Your task to perform on an android device: Open the stopwatch Image 0: 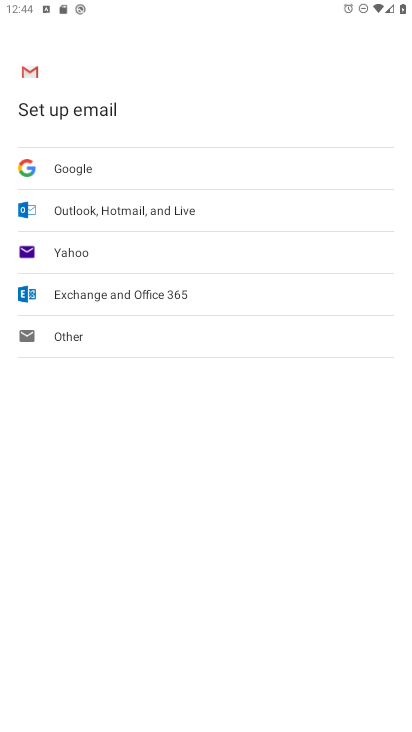
Step 0: press home button
Your task to perform on an android device: Open the stopwatch Image 1: 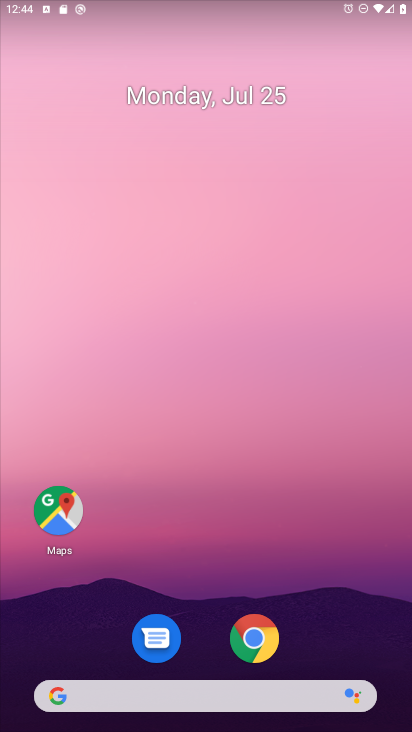
Step 1: drag from (213, 538) to (223, 62)
Your task to perform on an android device: Open the stopwatch Image 2: 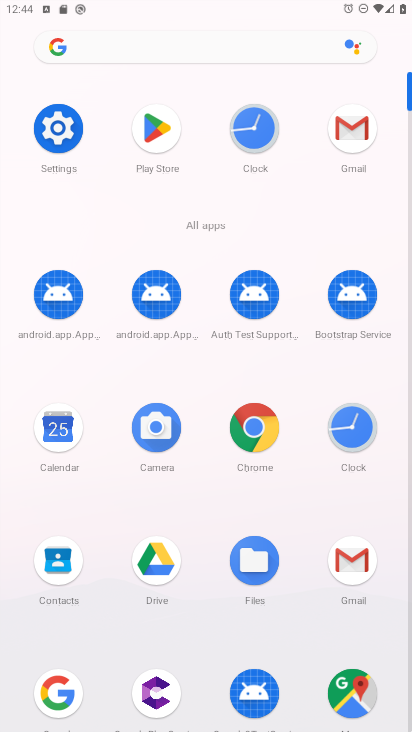
Step 2: click (355, 436)
Your task to perform on an android device: Open the stopwatch Image 3: 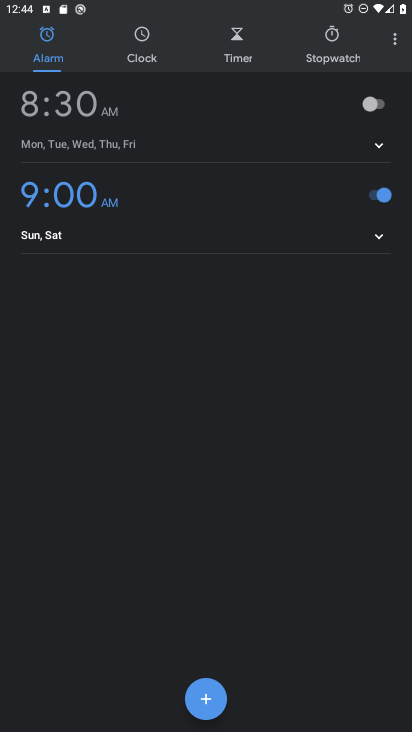
Step 3: click (331, 57)
Your task to perform on an android device: Open the stopwatch Image 4: 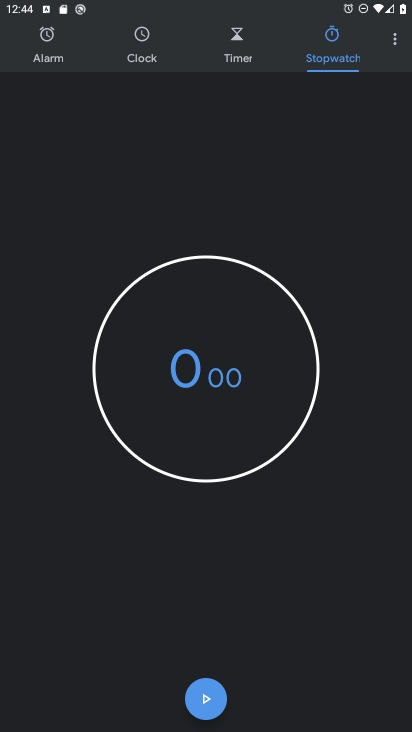
Step 4: task complete